Your task to perform on an android device: see creations saved in the google photos Image 0: 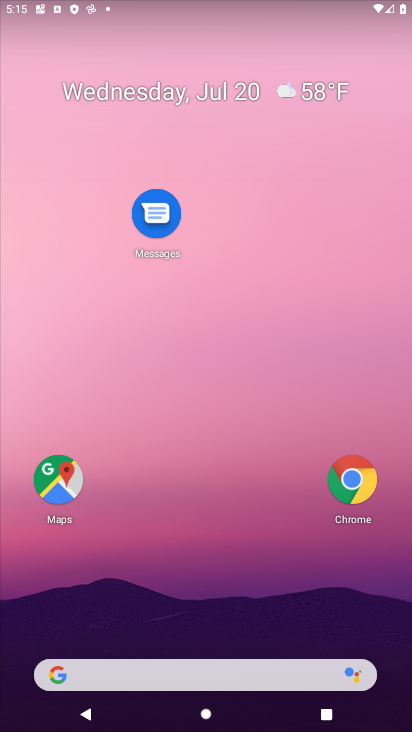
Step 0: drag from (194, 471) to (277, 9)
Your task to perform on an android device: see creations saved in the google photos Image 1: 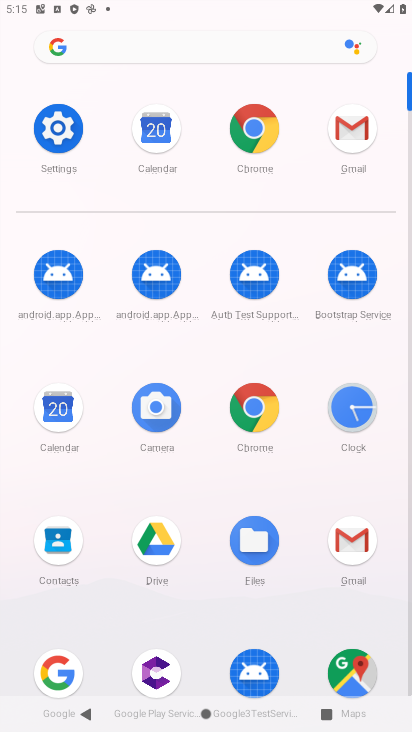
Step 1: drag from (244, 501) to (244, 328)
Your task to perform on an android device: see creations saved in the google photos Image 2: 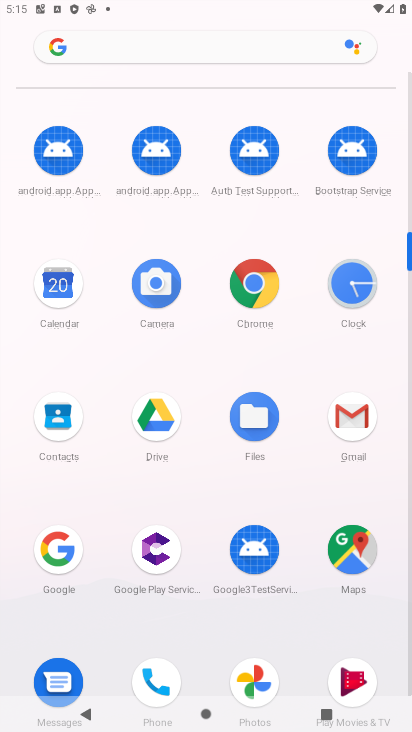
Step 2: drag from (244, 580) to (244, 420)
Your task to perform on an android device: see creations saved in the google photos Image 3: 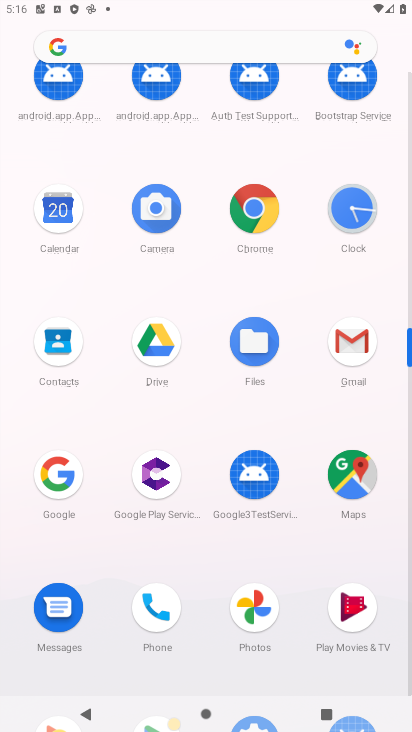
Step 3: click (255, 609)
Your task to perform on an android device: see creations saved in the google photos Image 4: 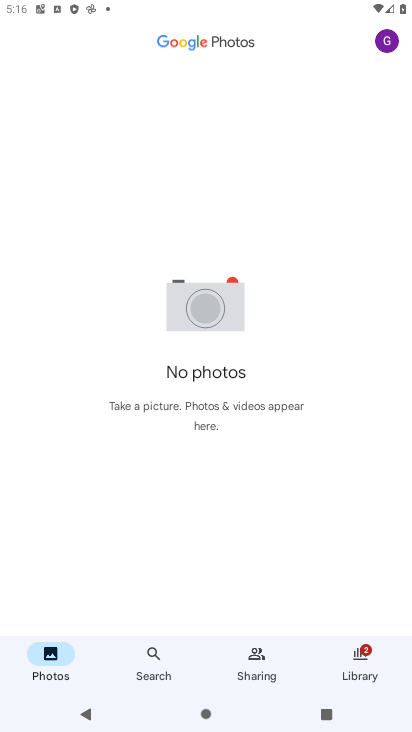
Step 4: click (141, 676)
Your task to perform on an android device: see creations saved in the google photos Image 5: 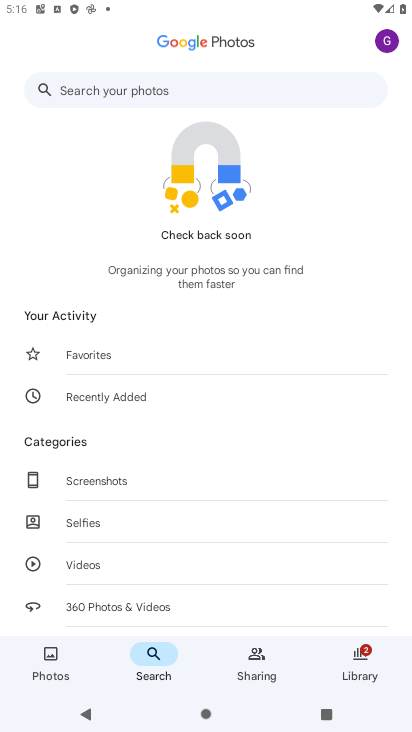
Step 5: drag from (110, 500) to (141, 317)
Your task to perform on an android device: see creations saved in the google photos Image 6: 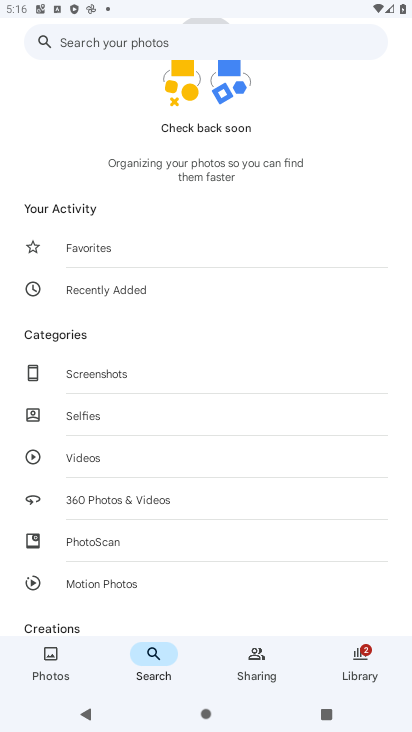
Step 6: drag from (100, 610) to (159, 321)
Your task to perform on an android device: see creations saved in the google photos Image 7: 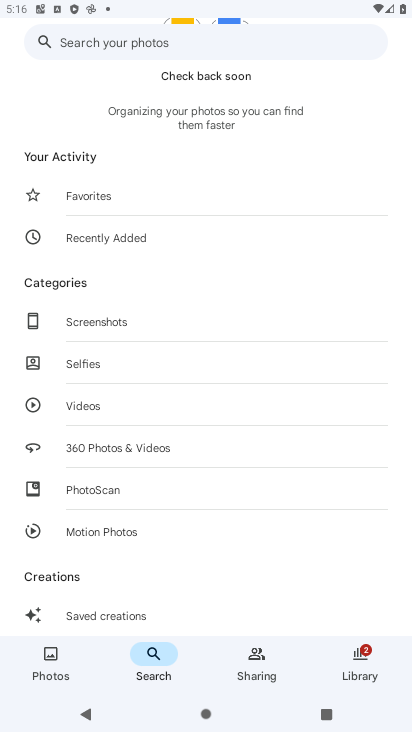
Step 7: click (102, 611)
Your task to perform on an android device: see creations saved in the google photos Image 8: 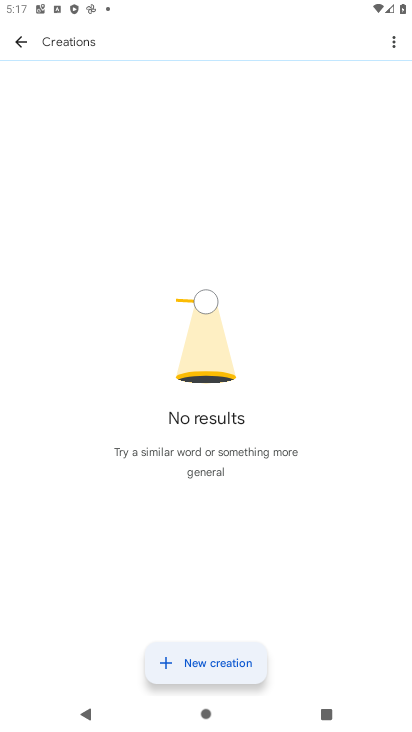
Step 8: task complete